Your task to perform on an android device: Toggle the flashlight Image 0: 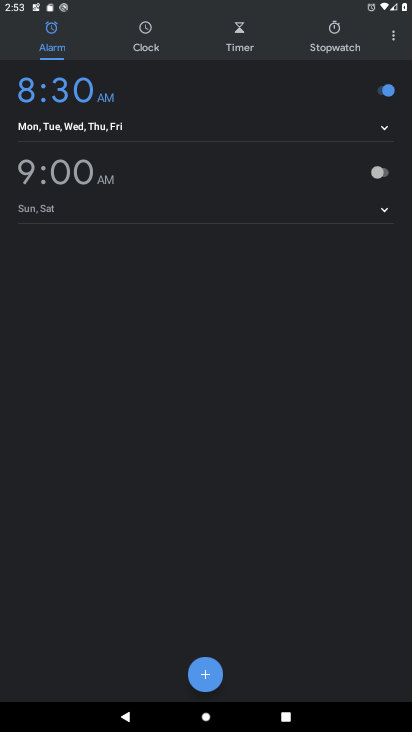
Step 0: press home button
Your task to perform on an android device: Toggle the flashlight Image 1: 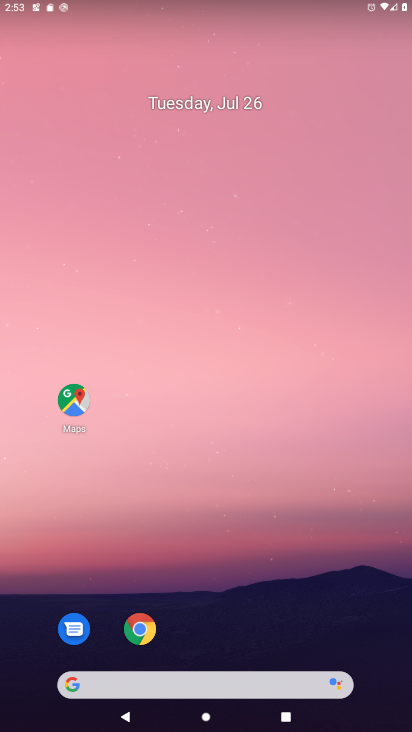
Step 1: task complete